Your task to perform on an android device: turn off wifi Image 0: 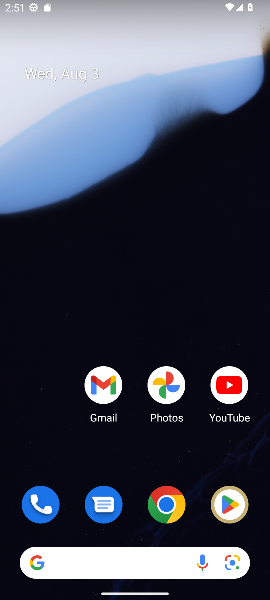
Step 0: drag from (184, 456) to (166, 58)
Your task to perform on an android device: turn off wifi Image 1: 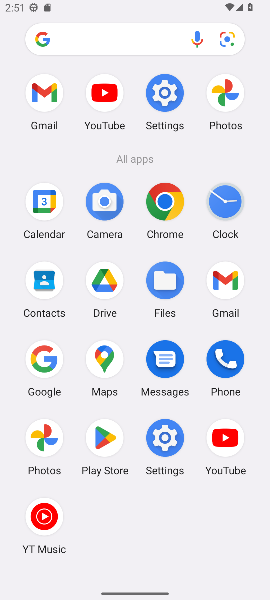
Step 1: click (175, 93)
Your task to perform on an android device: turn off wifi Image 2: 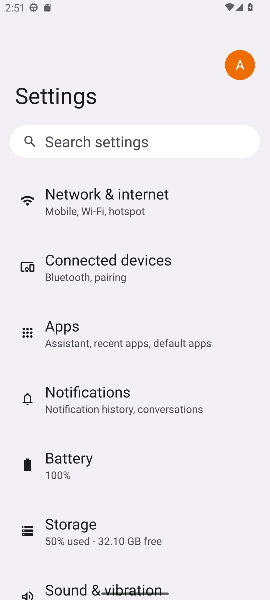
Step 2: click (151, 209)
Your task to perform on an android device: turn off wifi Image 3: 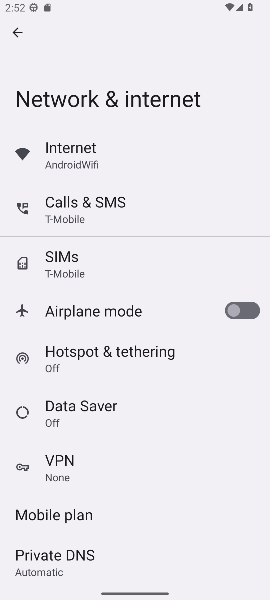
Step 3: click (87, 163)
Your task to perform on an android device: turn off wifi Image 4: 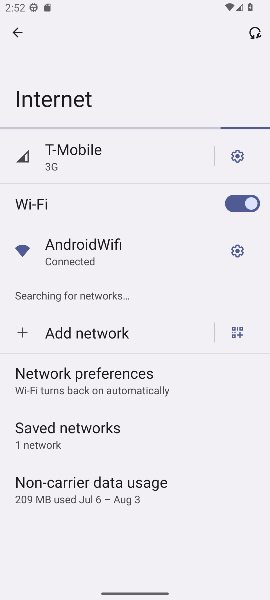
Step 4: click (252, 213)
Your task to perform on an android device: turn off wifi Image 5: 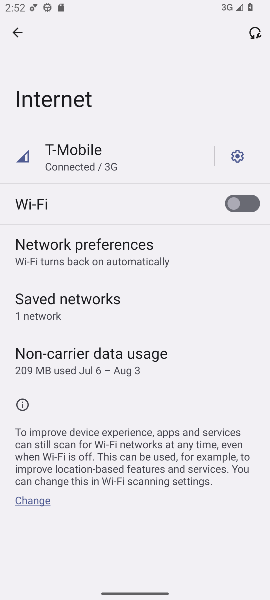
Step 5: task complete